Your task to perform on an android device: Open internet settings Image 0: 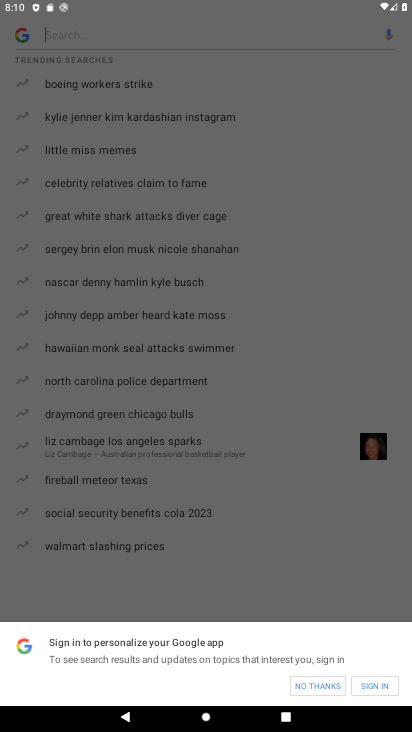
Step 0: press back button
Your task to perform on an android device: Open internet settings Image 1: 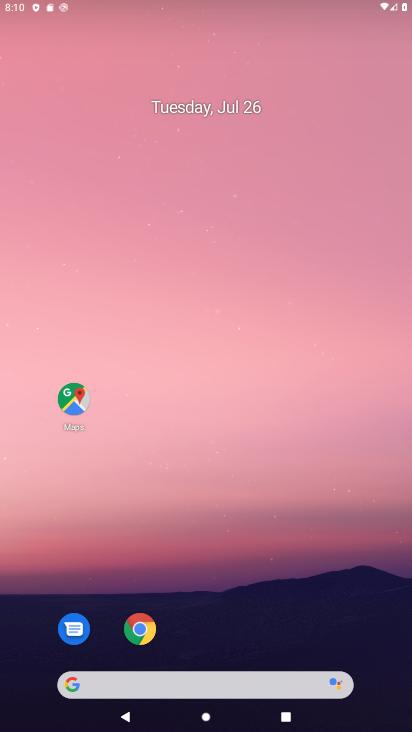
Step 1: press back button
Your task to perform on an android device: Open internet settings Image 2: 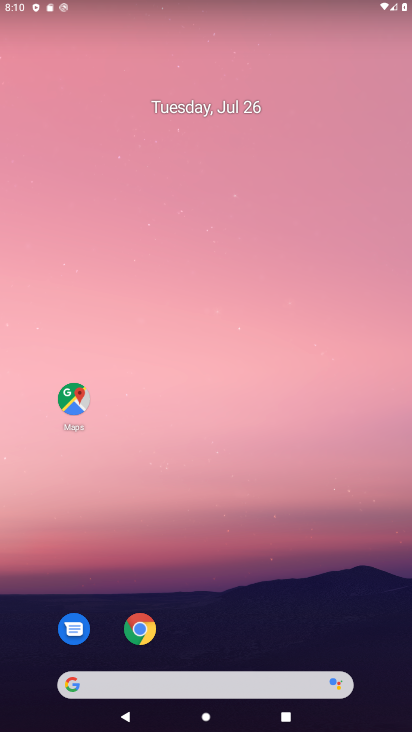
Step 2: drag from (217, 652) to (199, 104)
Your task to perform on an android device: Open internet settings Image 3: 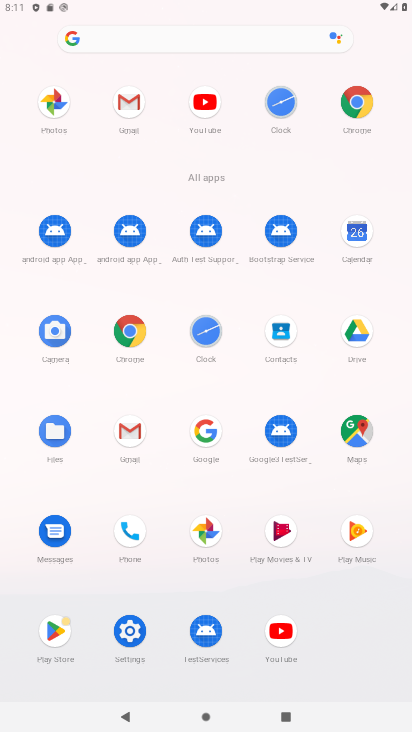
Step 3: click (131, 617)
Your task to perform on an android device: Open internet settings Image 4: 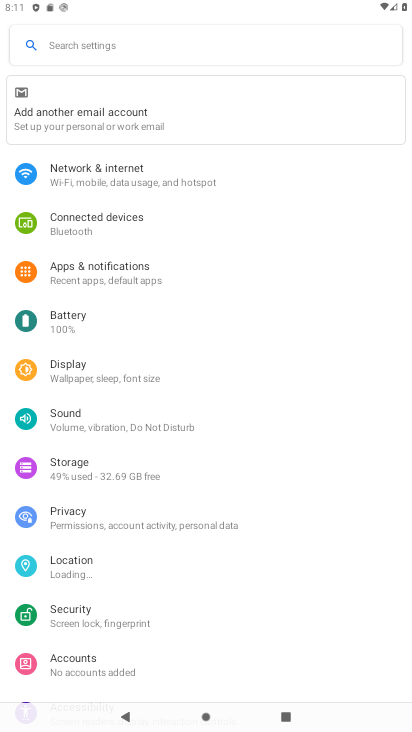
Step 4: click (121, 163)
Your task to perform on an android device: Open internet settings Image 5: 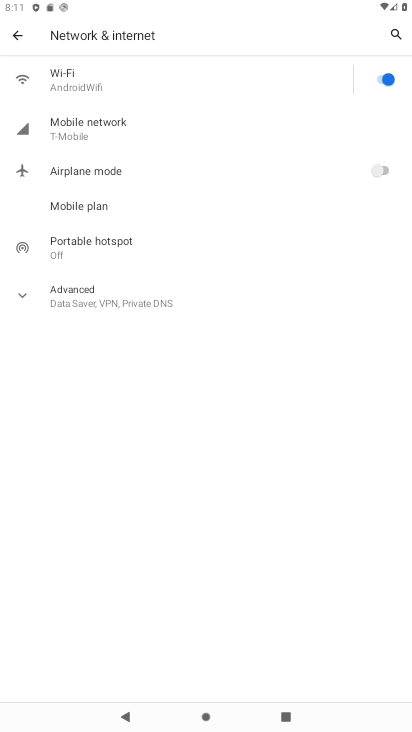
Step 5: click (104, 124)
Your task to perform on an android device: Open internet settings Image 6: 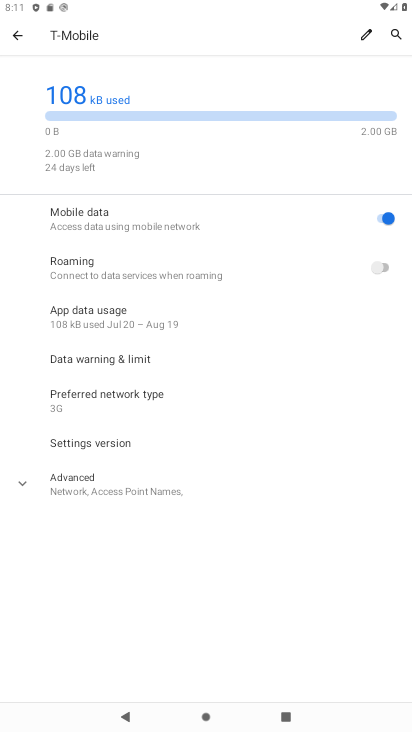
Step 6: task complete